Your task to perform on an android device: turn off priority inbox in the gmail app Image 0: 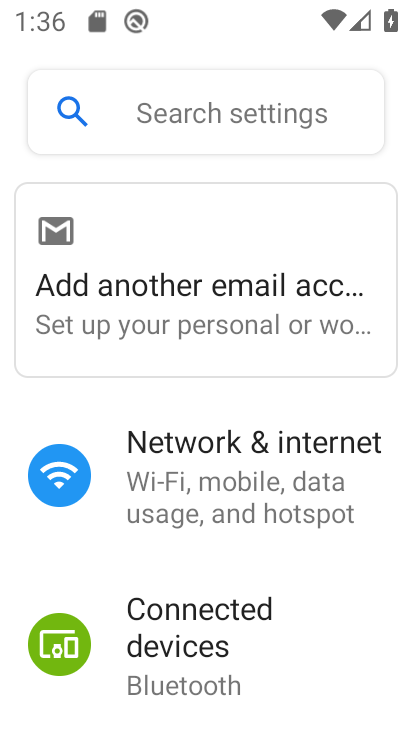
Step 0: press home button
Your task to perform on an android device: turn off priority inbox in the gmail app Image 1: 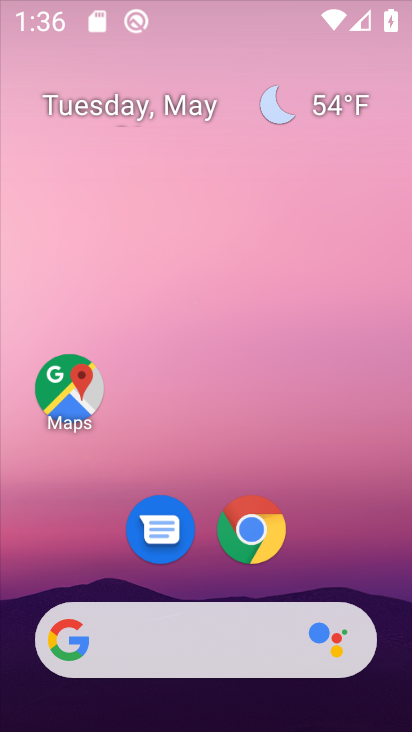
Step 1: drag from (220, 597) to (179, 242)
Your task to perform on an android device: turn off priority inbox in the gmail app Image 2: 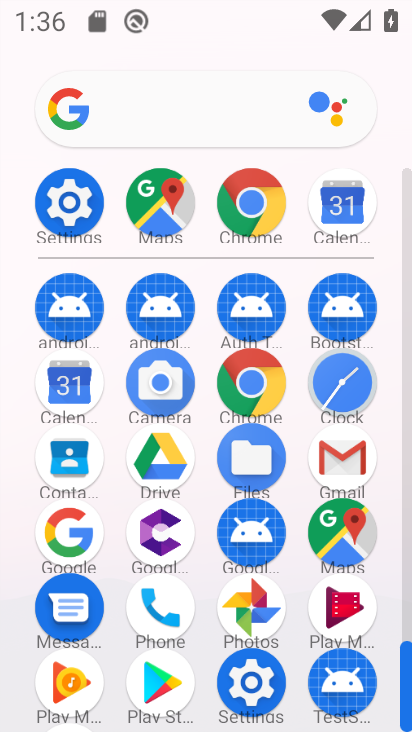
Step 2: click (328, 460)
Your task to perform on an android device: turn off priority inbox in the gmail app Image 3: 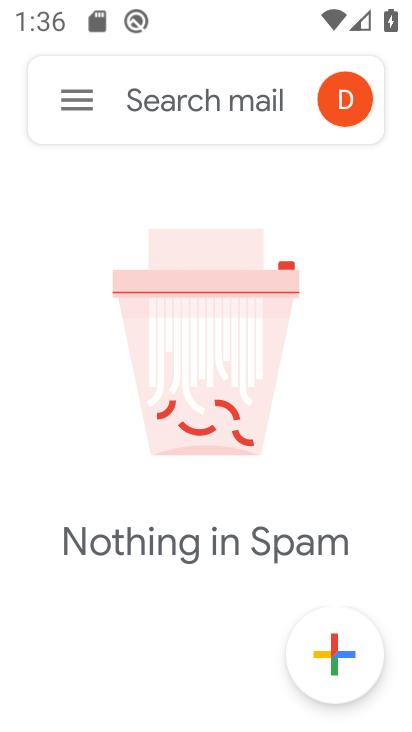
Step 3: click (66, 98)
Your task to perform on an android device: turn off priority inbox in the gmail app Image 4: 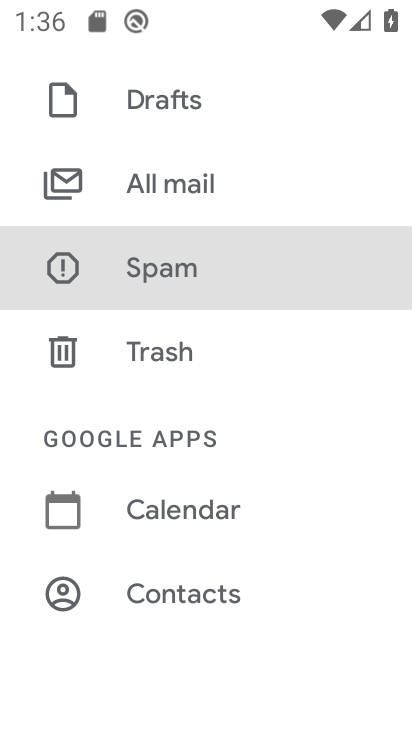
Step 4: drag from (217, 587) to (227, 249)
Your task to perform on an android device: turn off priority inbox in the gmail app Image 5: 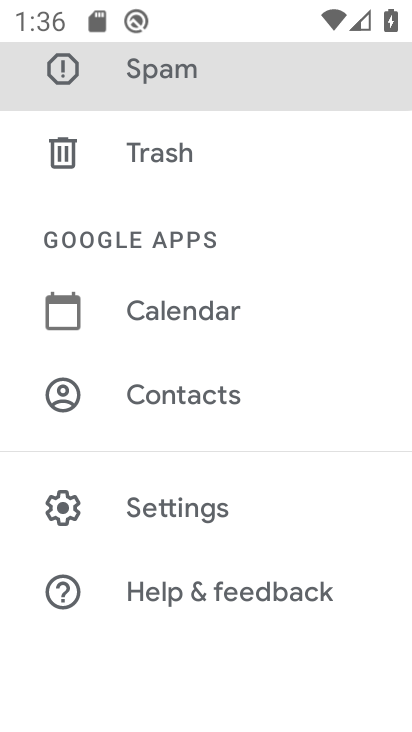
Step 5: click (210, 510)
Your task to perform on an android device: turn off priority inbox in the gmail app Image 6: 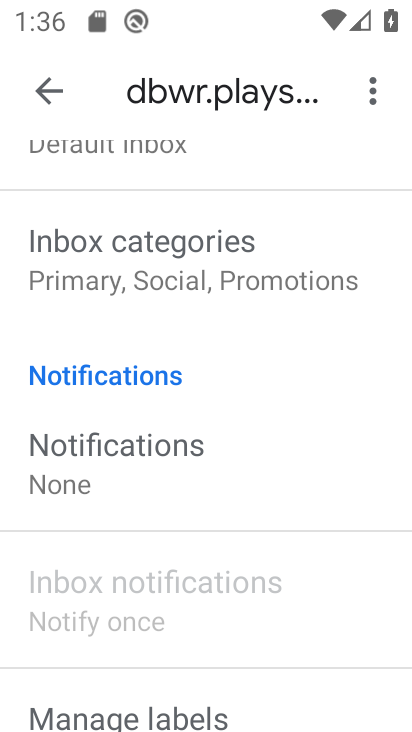
Step 6: click (153, 480)
Your task to perform on an android device: turn off priority inbox in the gmail app Image 7: 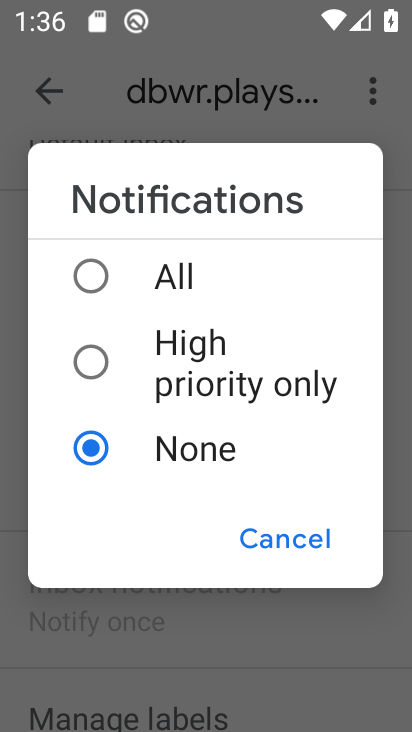
Step 7: click (253, 550)
Your task to perform on an android device: turn off priority inbox in the gmail app Image 8: 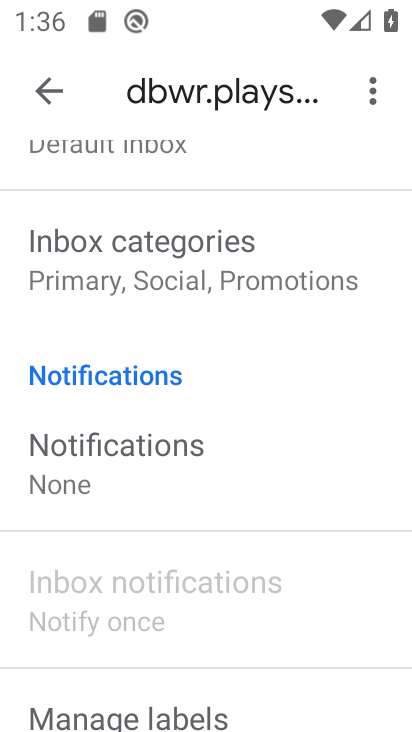
Step 8: drag from (177, 325) to (185, 547)
Your task to perform on an android device: turn off priority inbox in the gmail app Image 9: 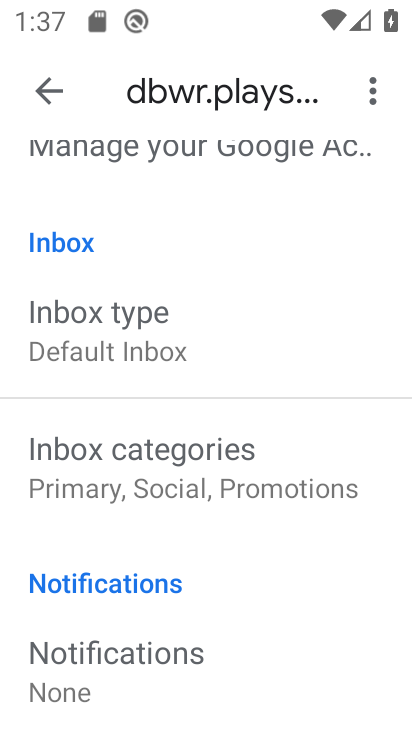
Step 9: click (138, 303)
Your task to perform on an android device: turn off priority inbox in the gmail app Image 10: 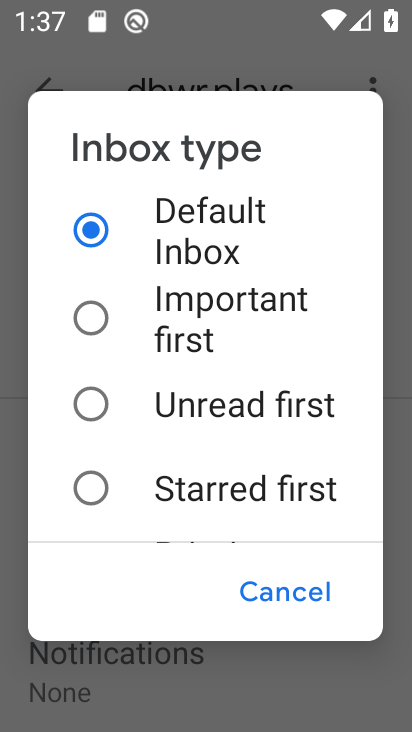
Step 10: task complete